Your task to perform on an android device: add a contact Image 0: 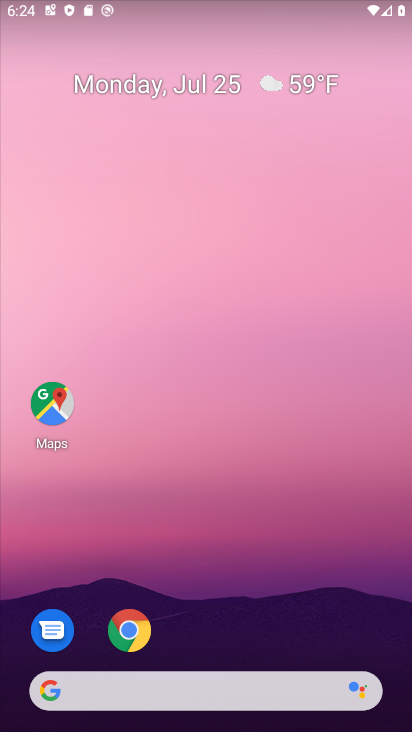
Step 0: drag from (187, 615) to (181, 121)
Your task to perform on an android device: add a contact Image 1: 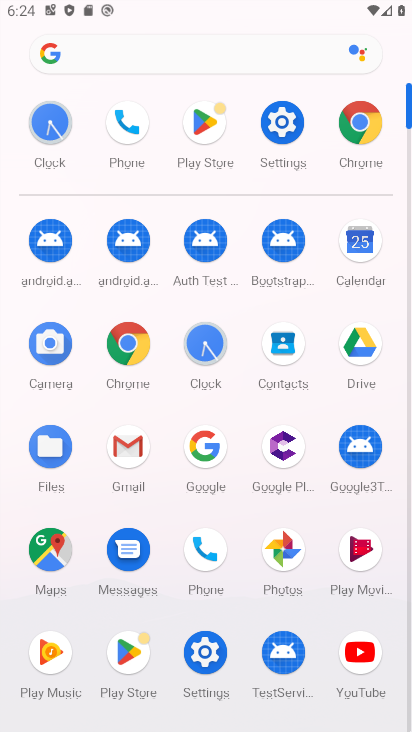
Step 1: click (260, 356)
Your task to perform on an android device: add a contact Image 2: 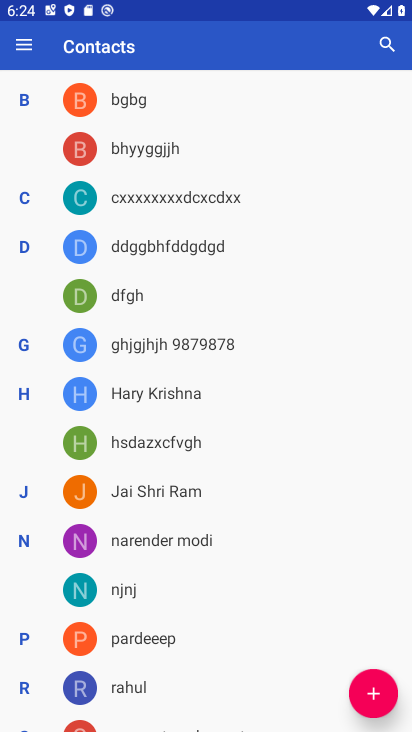
Step 2: click (366, 682)
Your task to perform on an android device: add a contact Image 3: 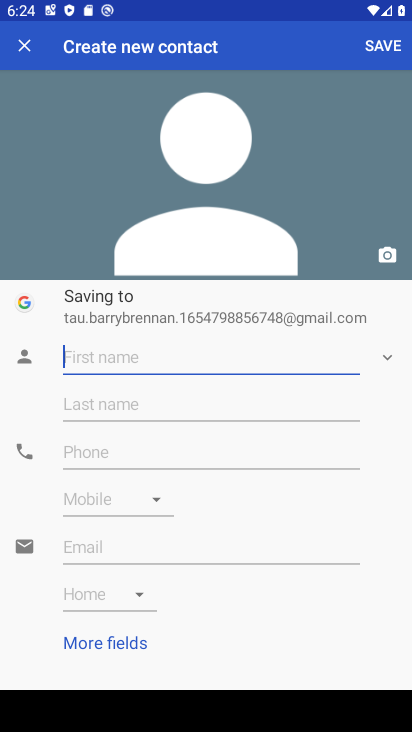
Step 3: type "Natasha"
Your task to perform on an android device: add a contact Image 4: 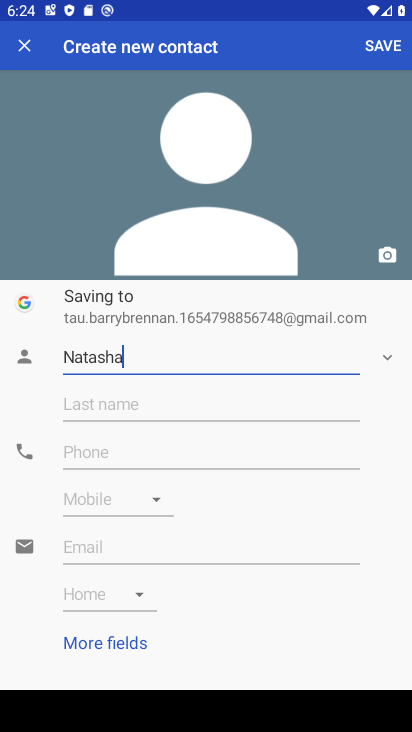
Step 4: click (146, 457)
Your task to perform on an android device: add a contact Image 5: 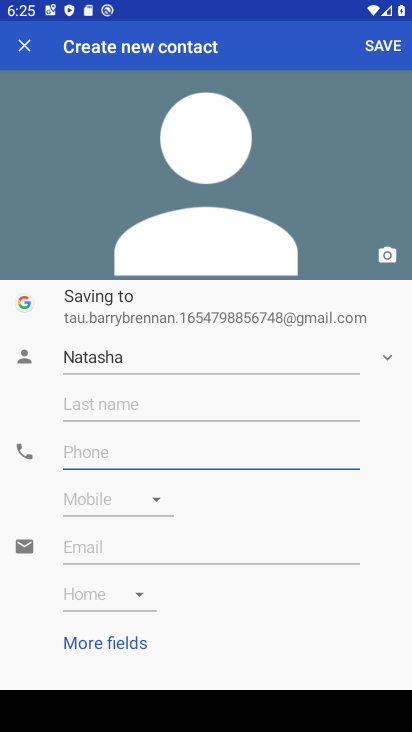
Step 5: type "6565565678"
Your task to perform on an android device: add a contact Image 6: 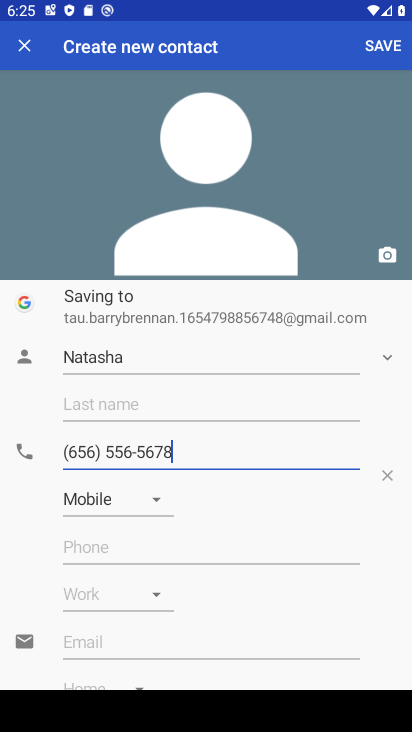
Step 6: click (397, 36)
Your task to perform on an android device: add a contact Image 7: 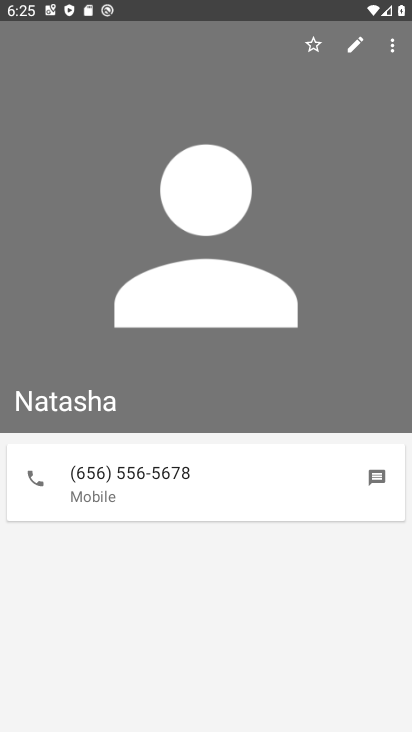
Step 7: task complete